Your task to perform on an android device: Go to CNN.com Image 0: 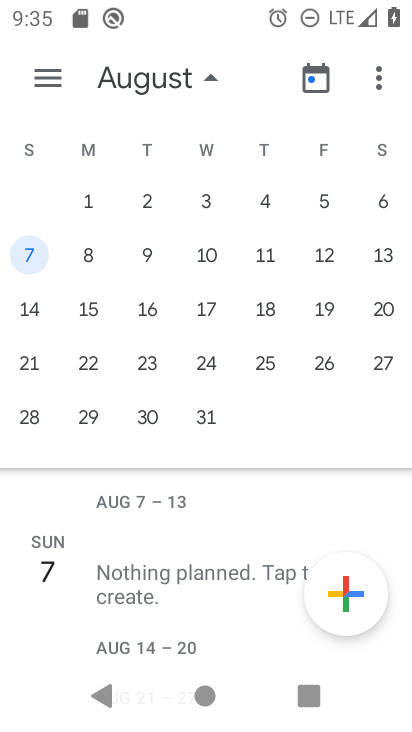
Step 0: press home button
Your task to perform on an android device: Go to CNN.com Image 1: 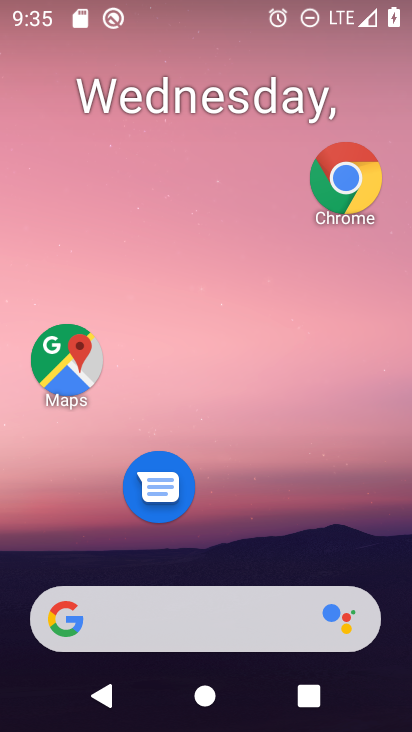
Step 1: click (369, 193)
Your task to perform on an android device: Go to CNN.com Image 2: 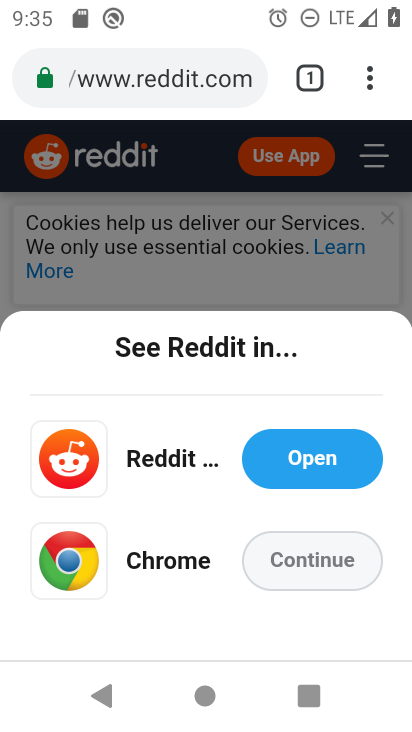
Step 2: click (236, 98)
Your task to perform on an android device: Go to CNN.com Image 3: 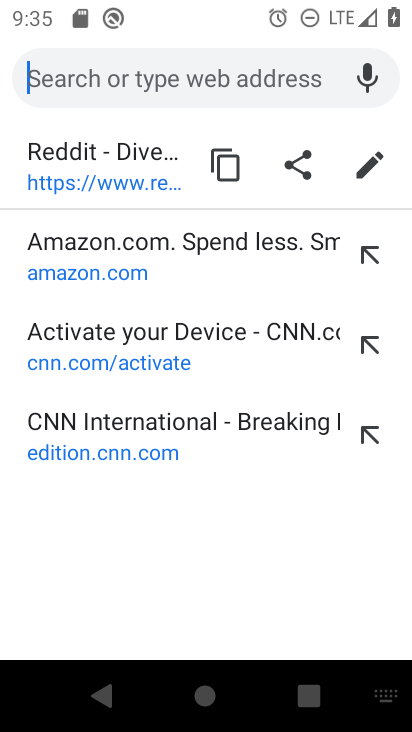
Step 3: click (178, 349)
Your task to perform on an android device: Go to CNN.com Image 4: 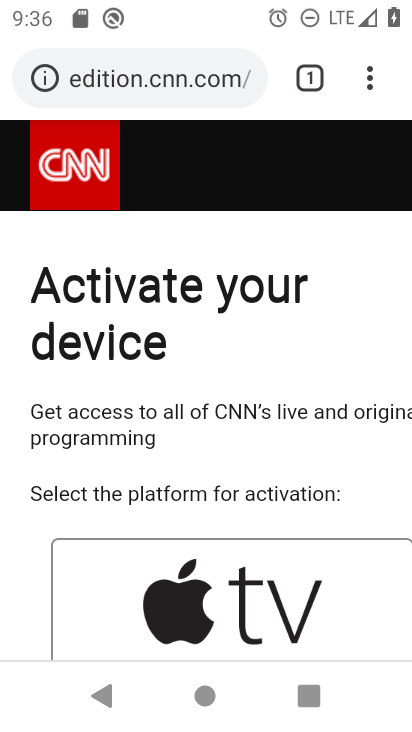
Step 4: task complete